Your task to perform on an android device: turn on showing notifications on the lock screen Image 0: 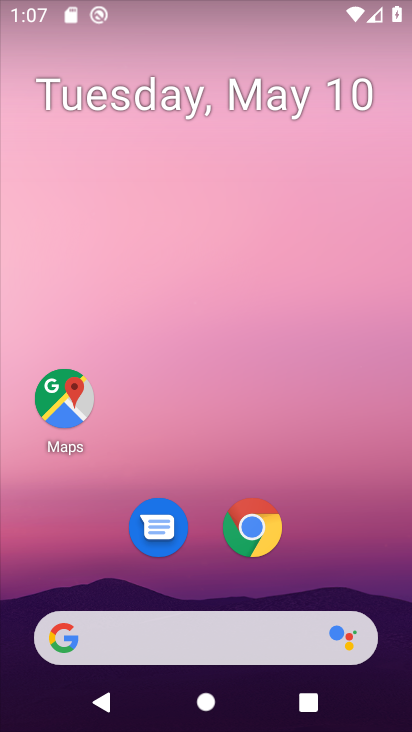
Step 0: drag from (208, 533) to (248, 41)
Your task to perform on an android device: turn on showing notifications on the lock screen Image 1: 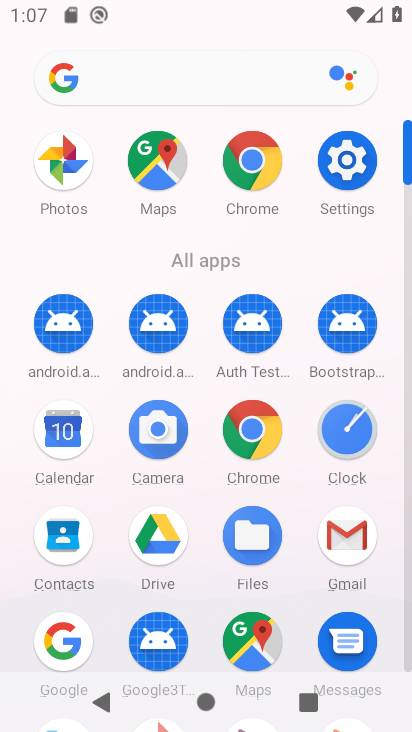
Step 1: click (338, 180)
Your task to perform on an android device: turn on showing notifications on the lock screen Image 2: 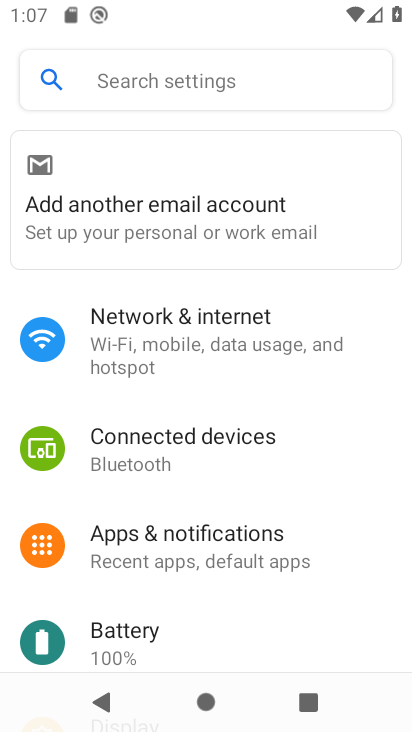
Step 2: click (213, 554)
Your task to perform on an android device: turn on showing notifications on the lock screen Image 3: 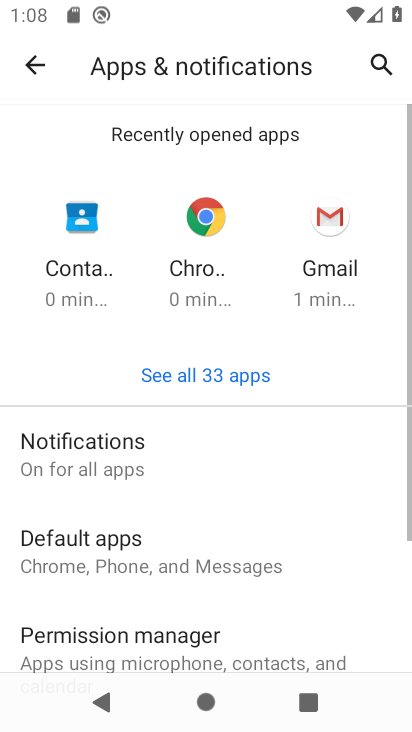
Step 3: click (140, 467)
Your task to perform on an android device: turn on showing notifications on the lock screen Image 4: 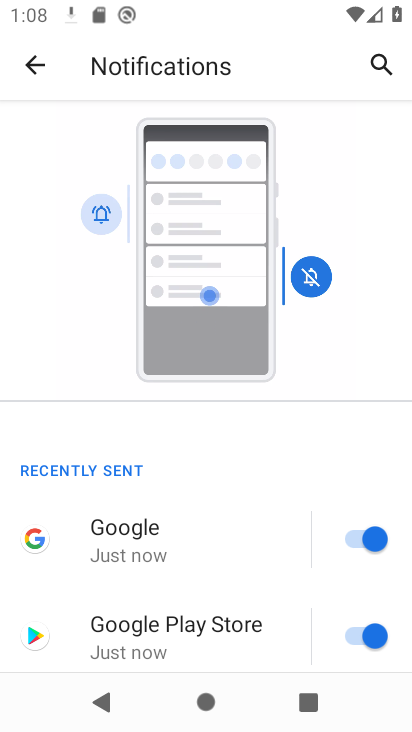
Step 4: drag from (193, 487) to (236, 256)
Your task to perform on an android device: turn on showing notifications on the lock screen Image 5: 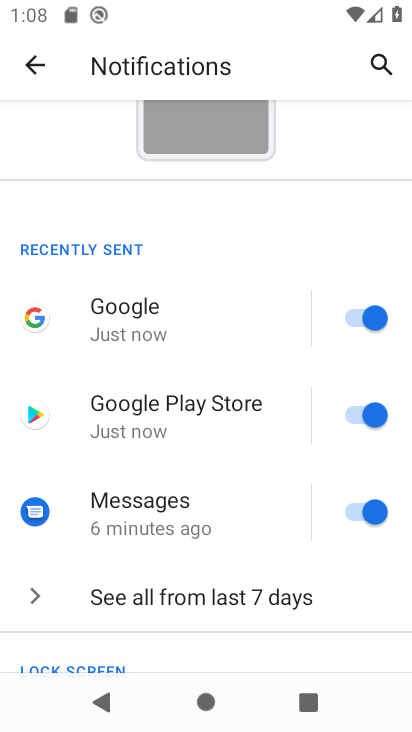
Step 5: drag from (181, 630) to (207, 315)
Your task to perform on an android device: turn on showing notifications on the lock screen Image 6: 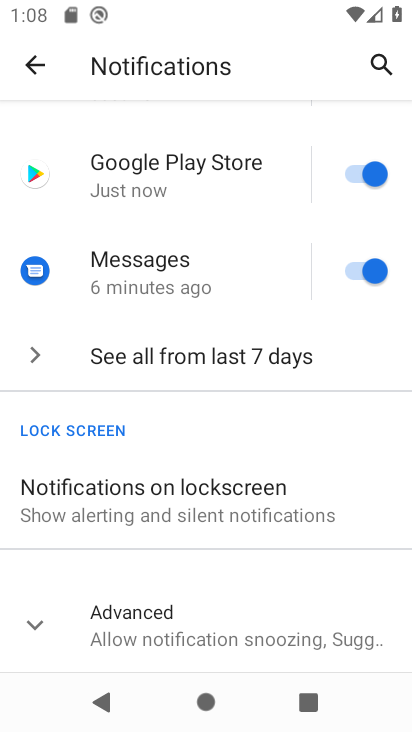
Step 6: click (170, 650)
Your task to perform on an android device: turn on showing notifications on the lock screen Image 7: 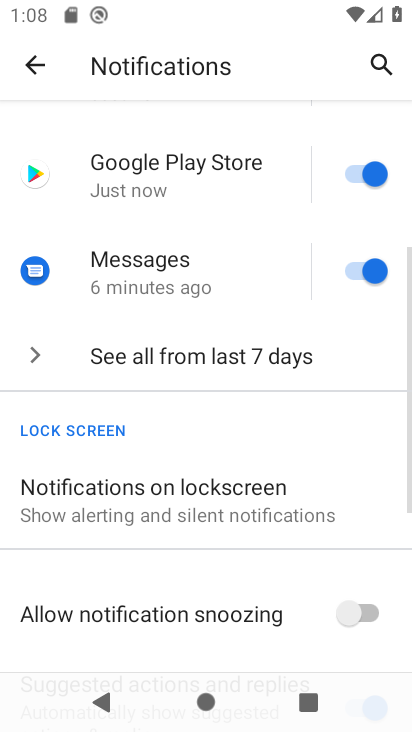
Step 7: click (197, 507)
Your task to perform on an android device: turn on showing notifications on the lock screen Image 8: 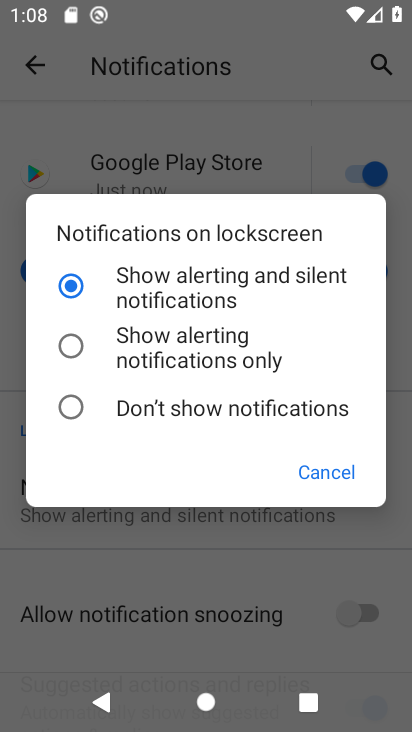
Step 8: task complete